Your task to perform on an android device: turn off airplane mode Image 0: 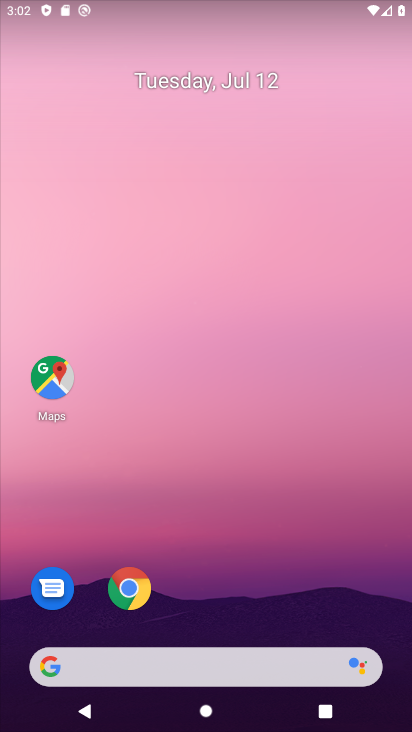
Step 0: drag from (273, 616) to (216, 37)
Your task to perform on an android device: turn off airplane mode Image 1: 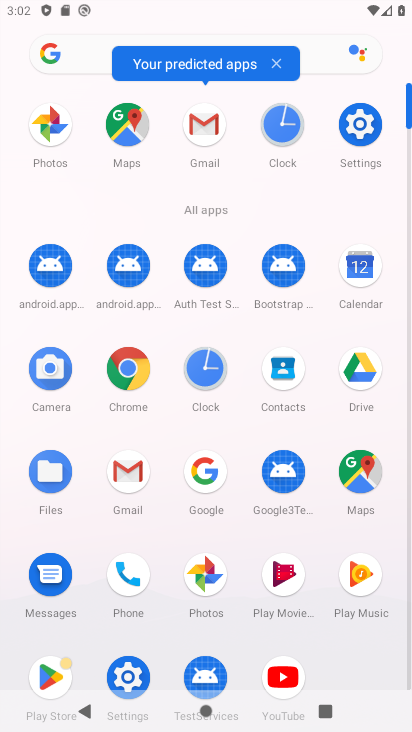
Step 1: click (365, 130)
Your task to perform on an android device: turn off airplane mode Image 2: 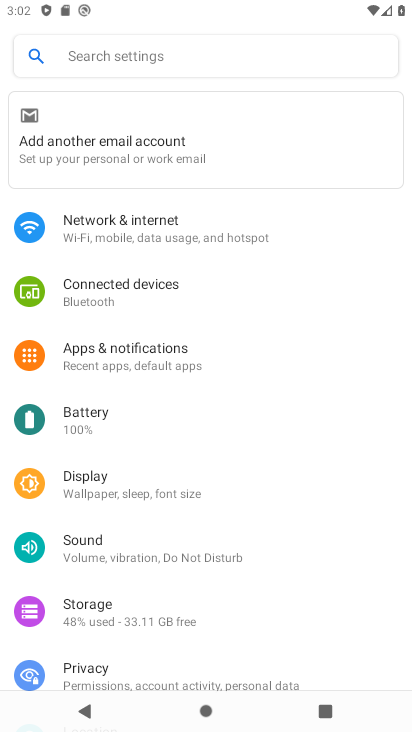
Step 2: click (308, 215)
Your task to perform on an android device: turn off airplane mode Image 3: 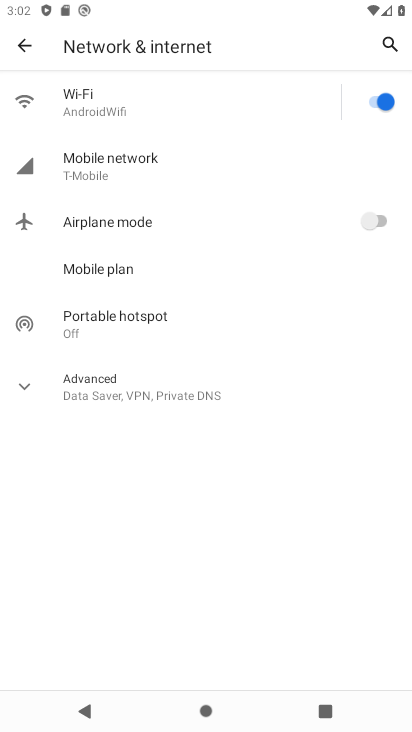
Step 3: task complete